Your task to perform on an android device: Open the web browser Image 0: 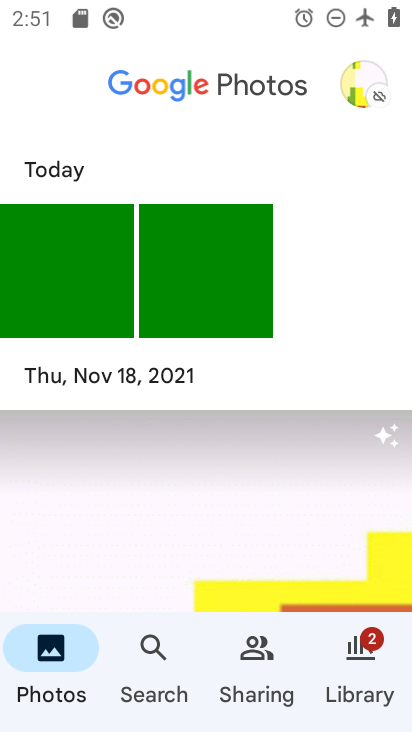
Step 0: press home button
Your task to perform on an android device: Open the web browser Image 1: 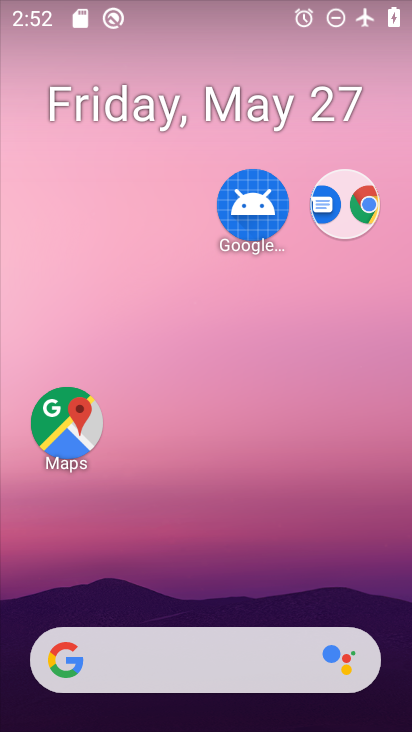
Step 1: drag from (342, 629) to (390, 38)
Your task to perform on an android device: Open the web browser Image 2: 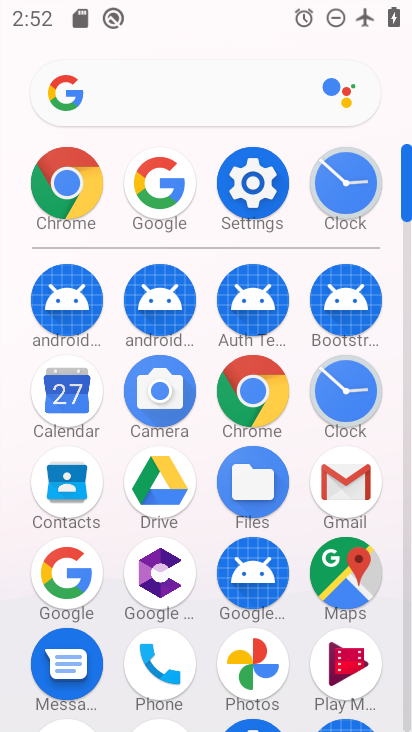
Step 2: drag from (278, 515) to (270, 338)
Your task to perform on an android device: Open the web browser Image 3: 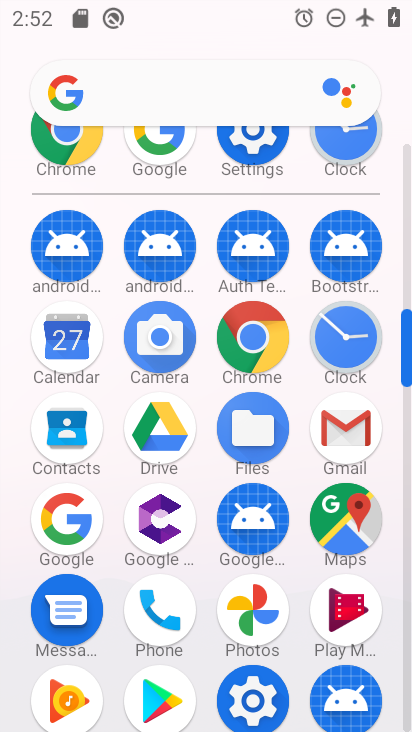
Step 3: click (266, 340)
Your task to perform on an android device: Open the web browser Image 4: 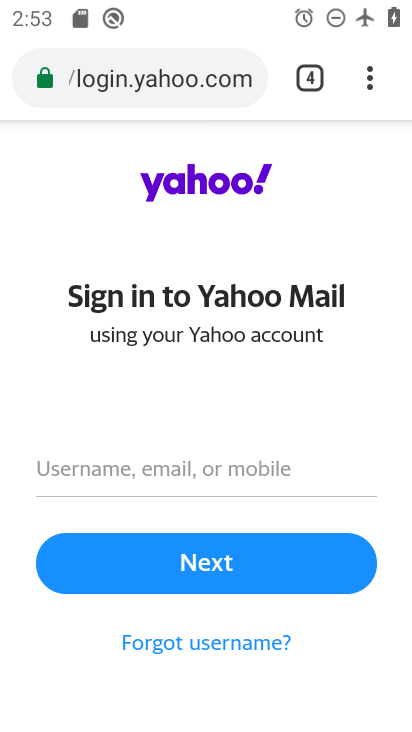
Step 4: task complete